Your task to perform on an android device: Open calendar and show me the second week of next month Image 0: 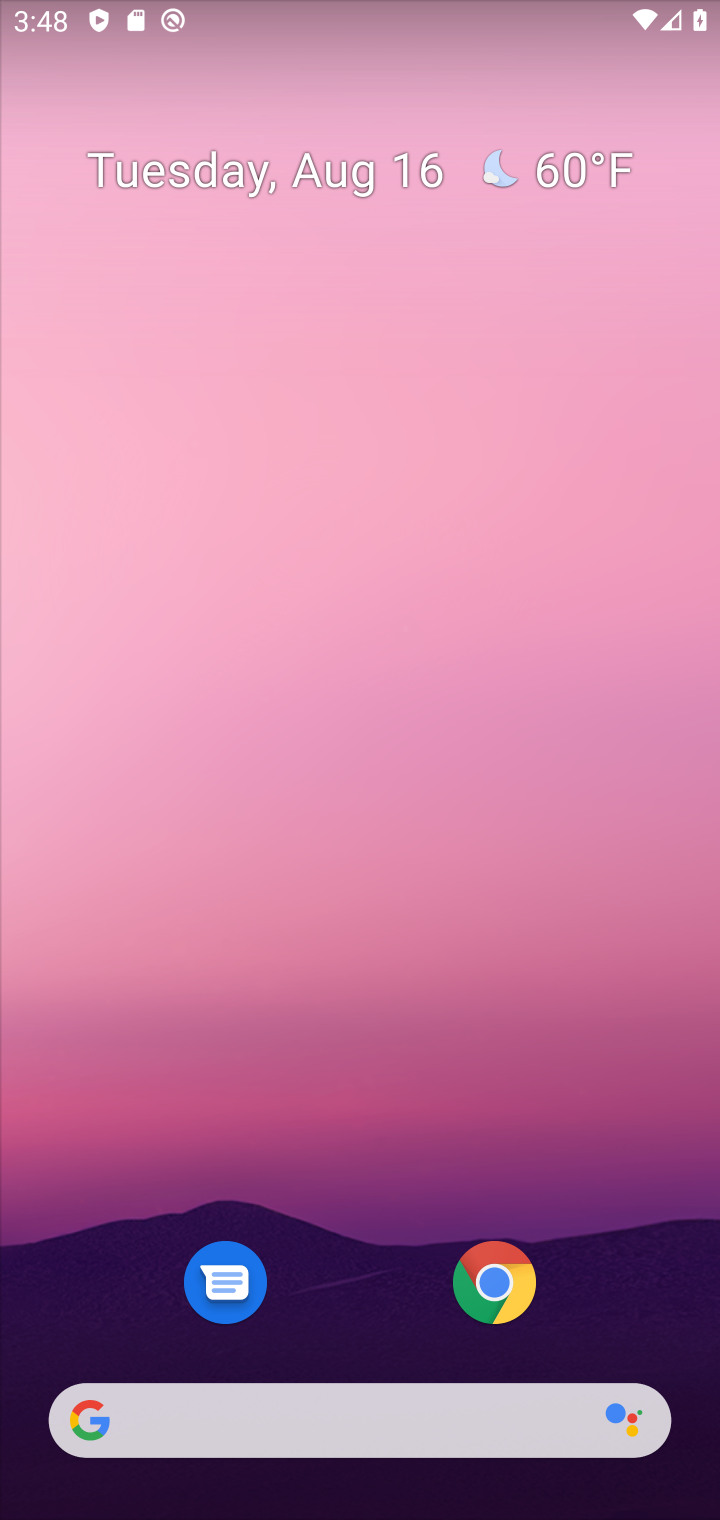
Step 0: drag from (327, 1320) to (477, 188)
Your task to perform on an android device: Open calendar and show me the second week of next month Image 1: 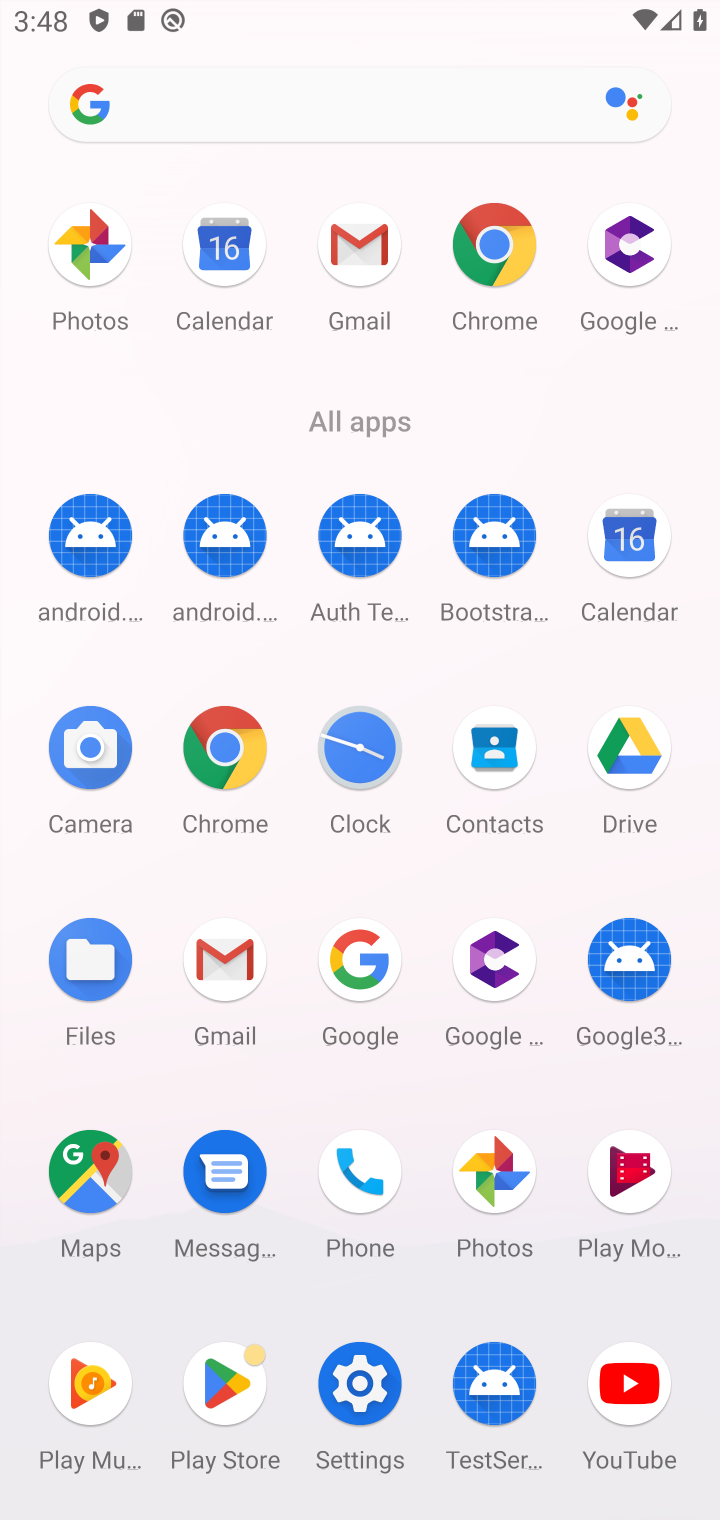
Step 1: click (221, 244)
Your task to perform on an android device: Open calendar and show me the second week of next month Image 2: 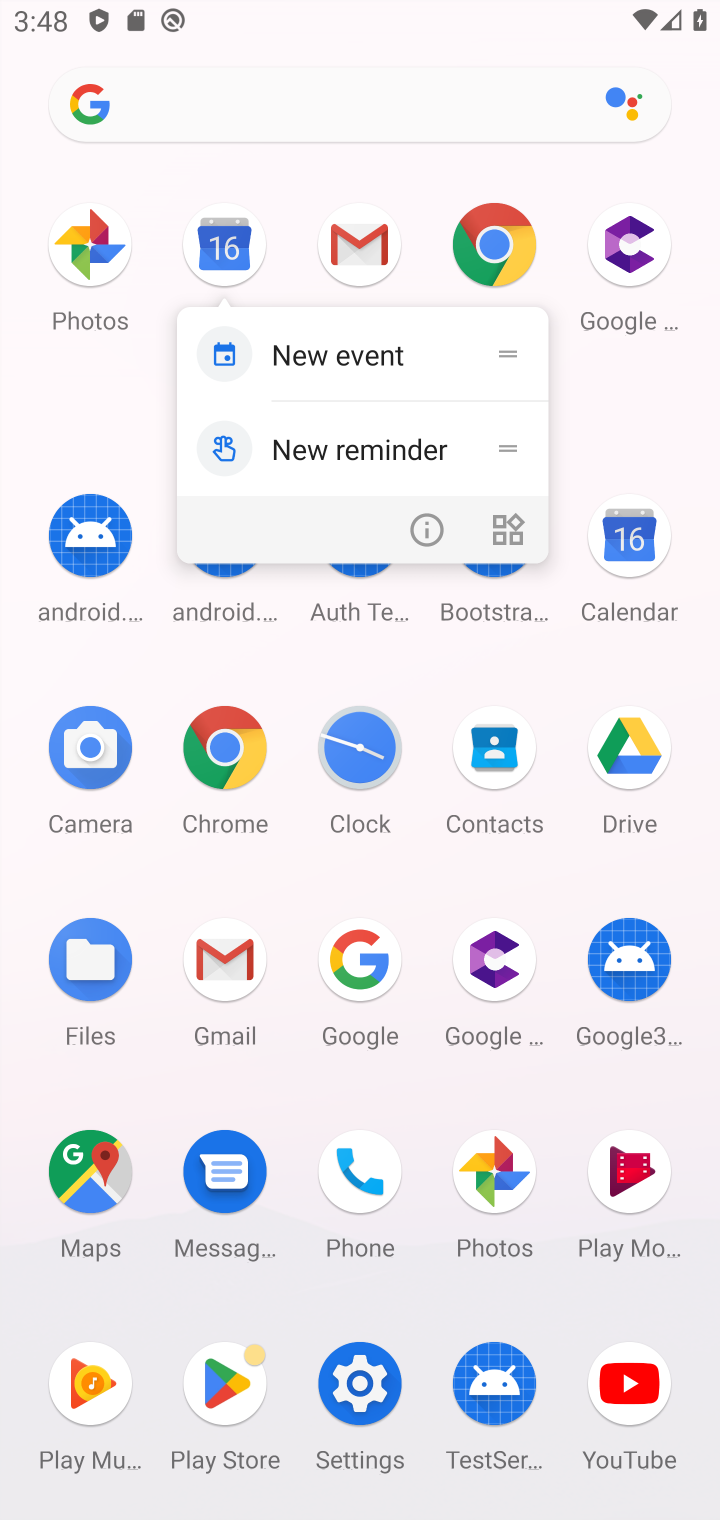
Step 2: click (231, 251)
Your task to perform on an android device: Open calendar and show me the second week of next month Image 3: 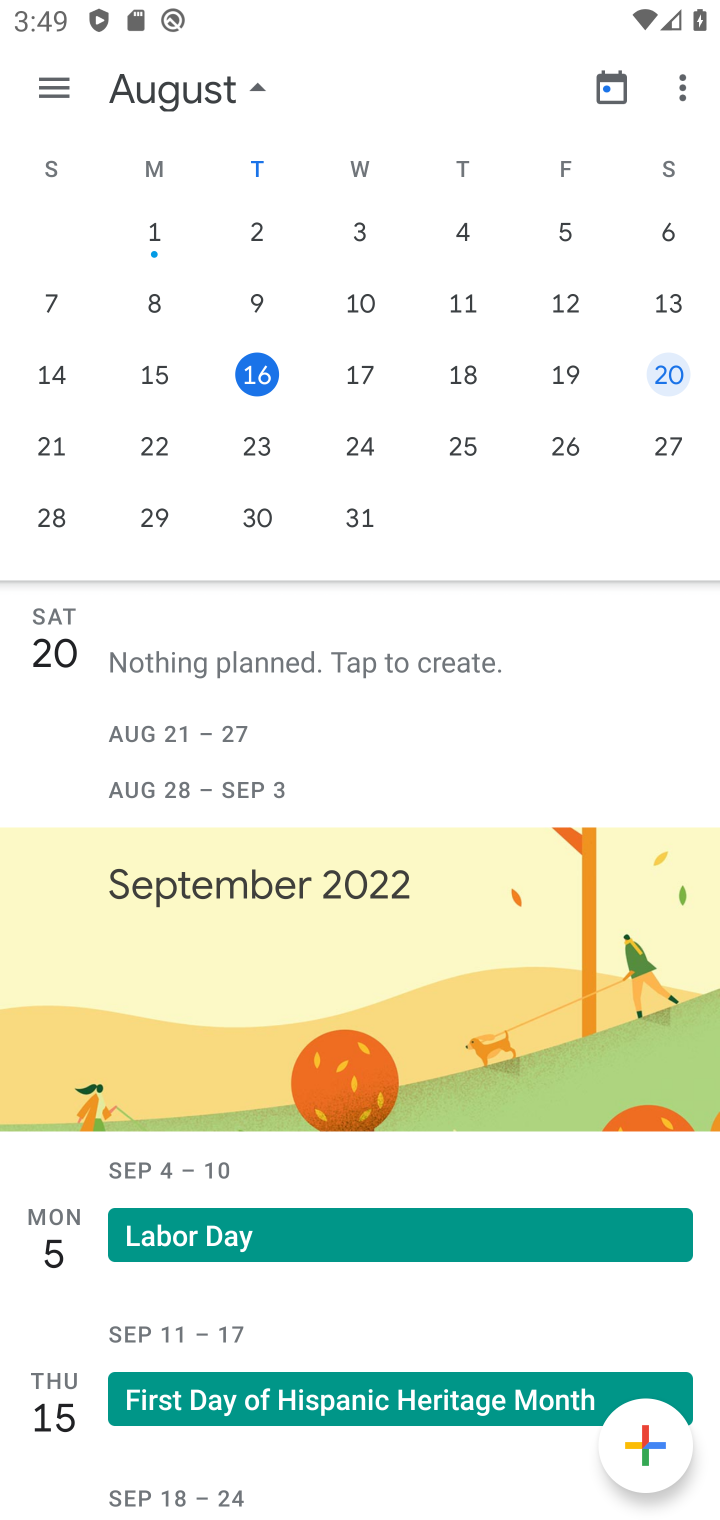
Step 3: drag from (652, 373) to (22, 414)
Your task to perform on an android device: Open calendar and show me the second week of next month Image 4: 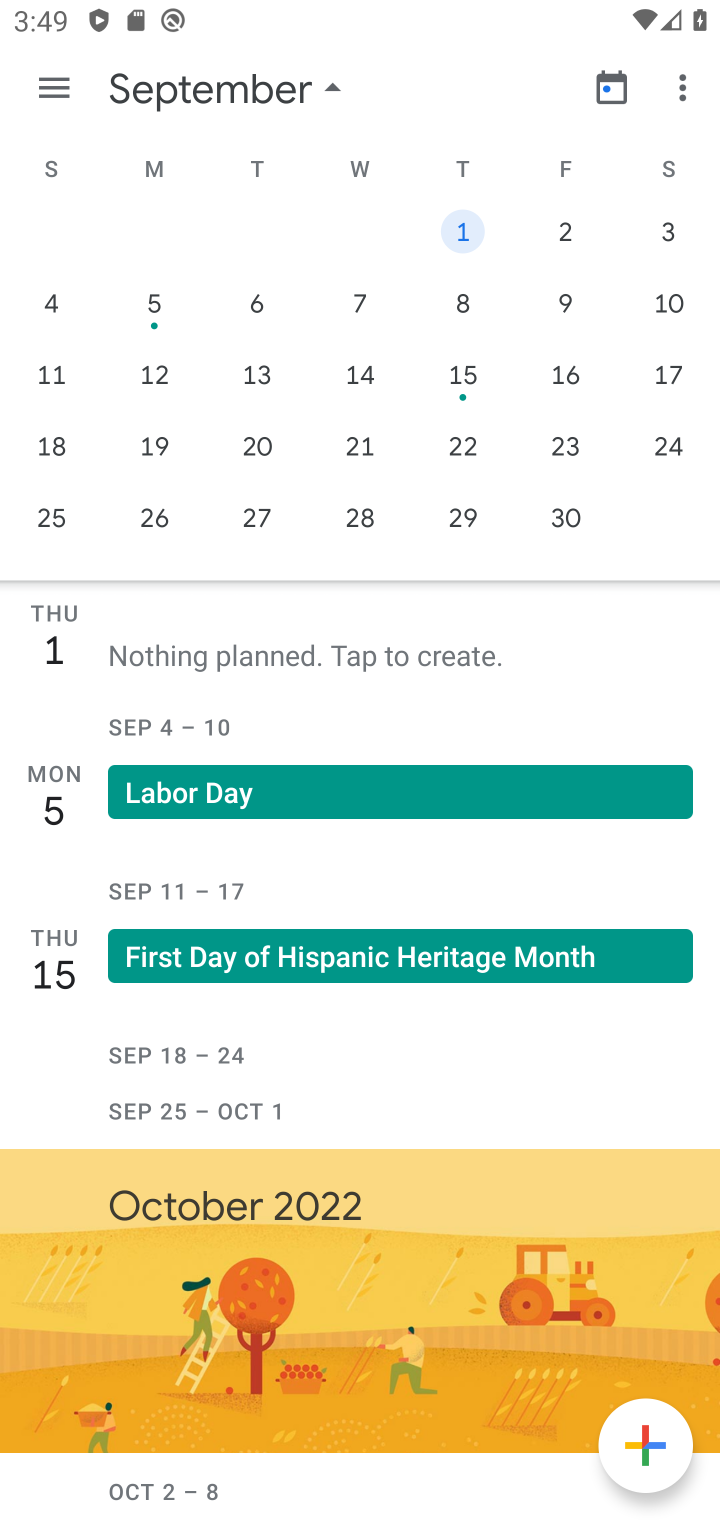
Step 4: click (169, 305)
Your task to perform on an android device: Open calendar and show me the second week of next month Image 5: 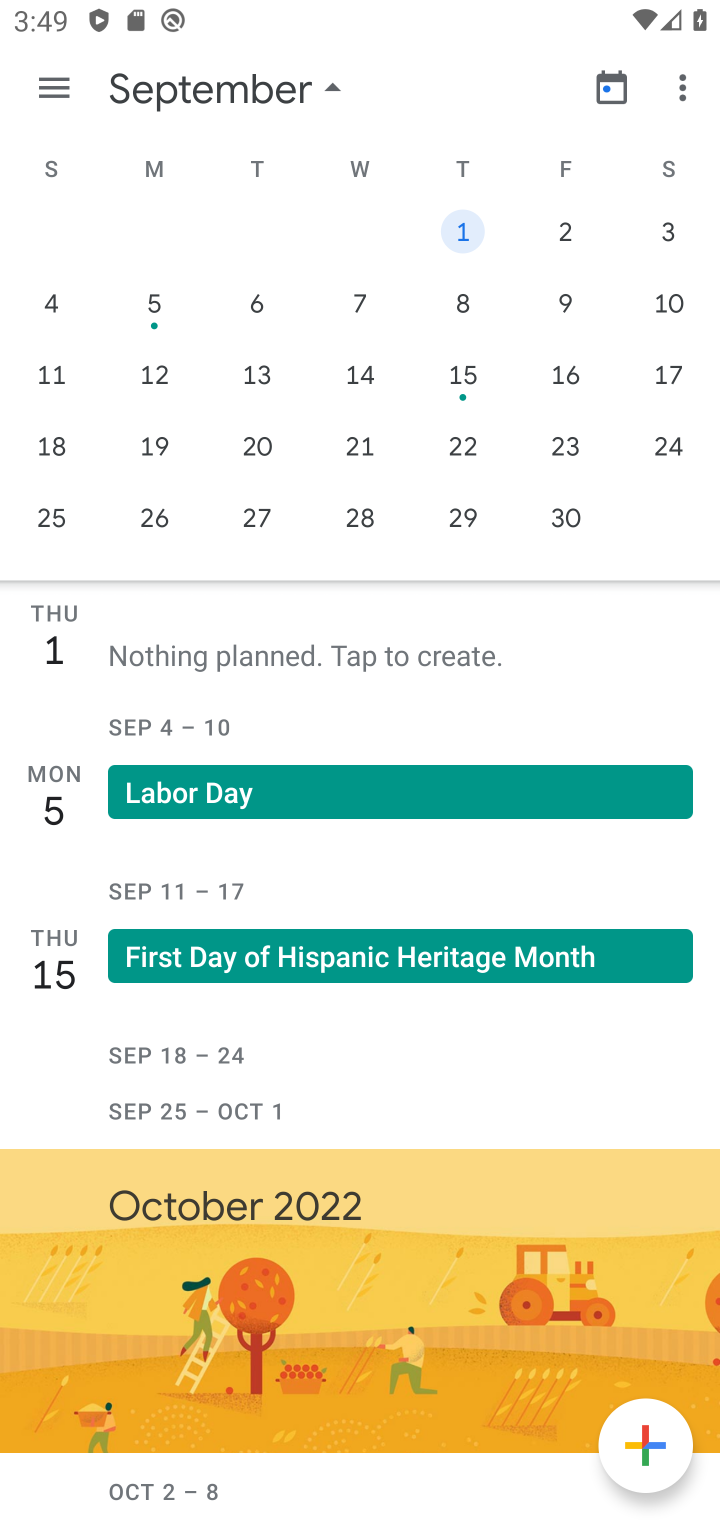
Step 5: click (158, 377)
Your task to perform on an android device: Open calendar and show me the second week of next month Image 6: 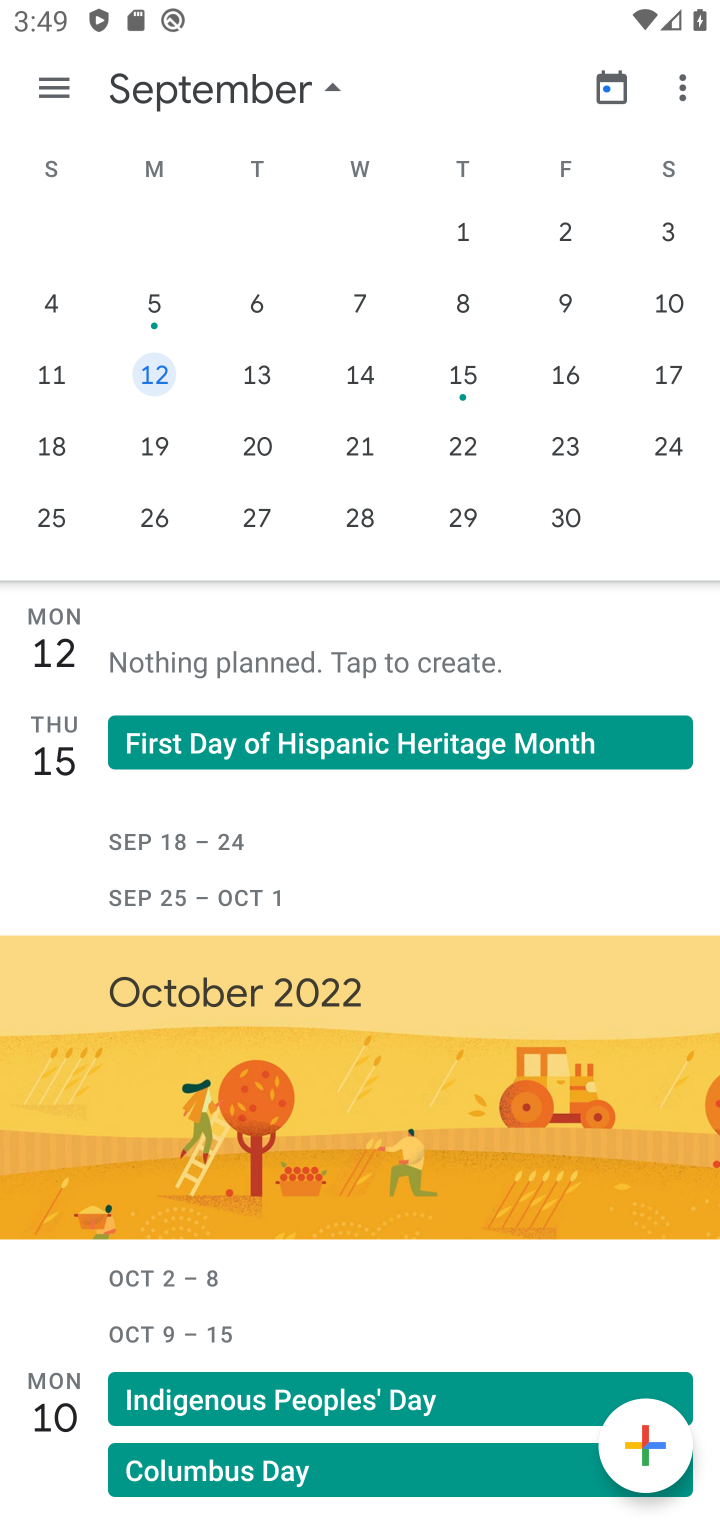
Step 6: click (163, 373)
Your task to perform on an android device: Open calendar and show me the second week of next month Image 7: 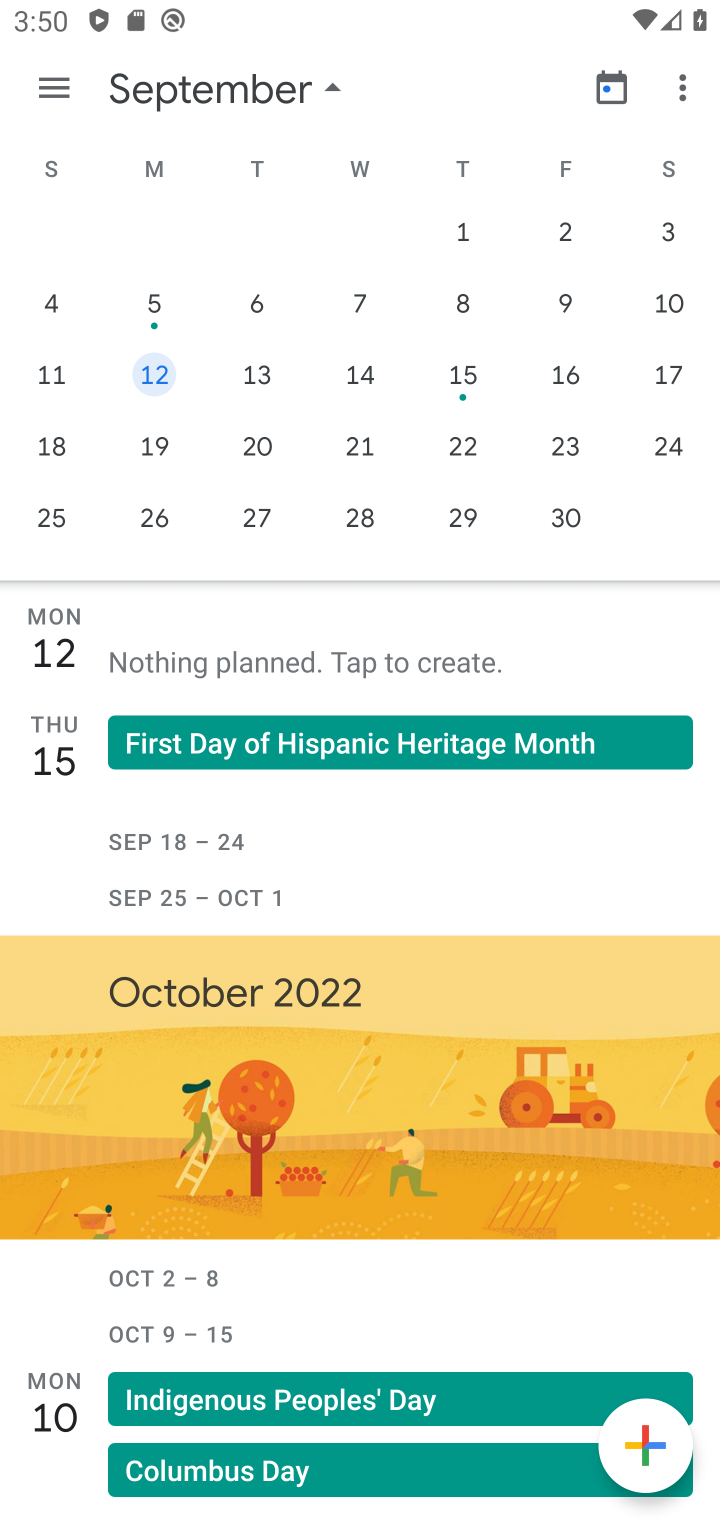
Step 7: task complete